Your task to perform on an android device: Go to sound settings Image 0: 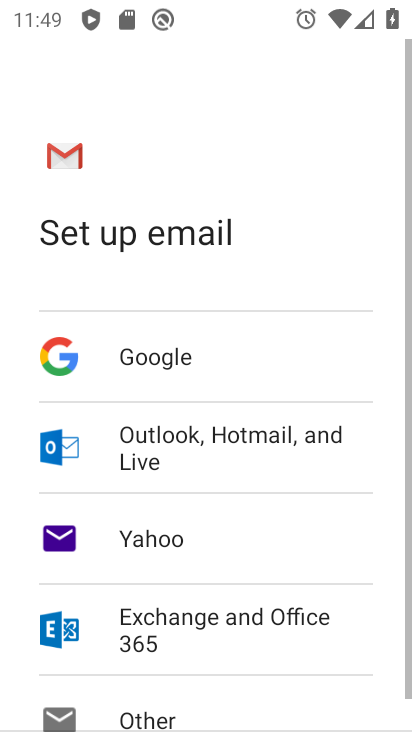
Step 0: press home button
Your task to perform on an android device: Go to sound settings Image 1: 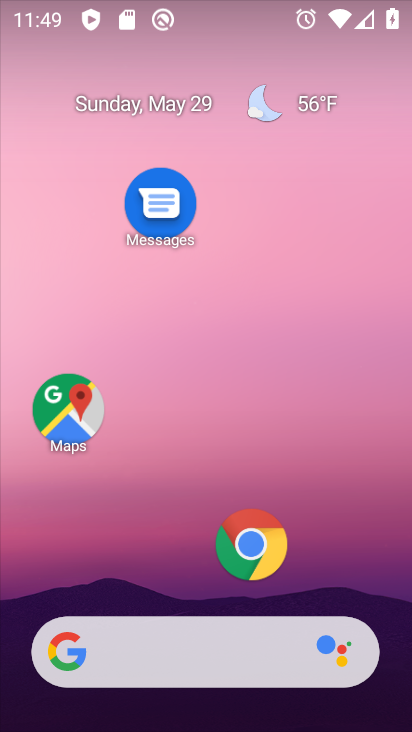
Step 1: drag from (199, 586) to (251, 17)
Your task to perform on an android device: Go to sound settings Image 2: 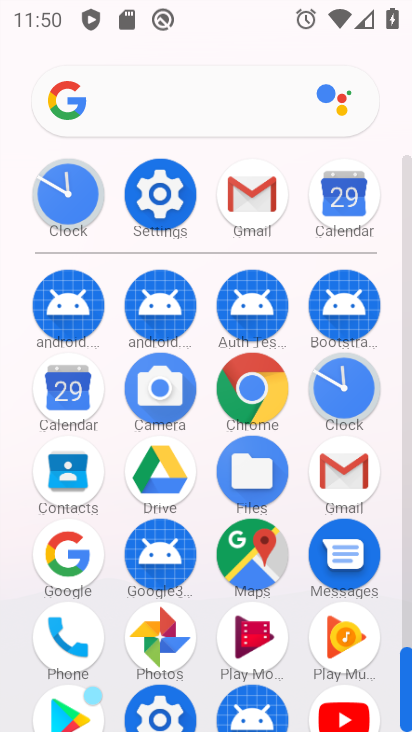
Step 2: click (164, 188)
Your task to perform on an android device: Go to sound settings Image 3: 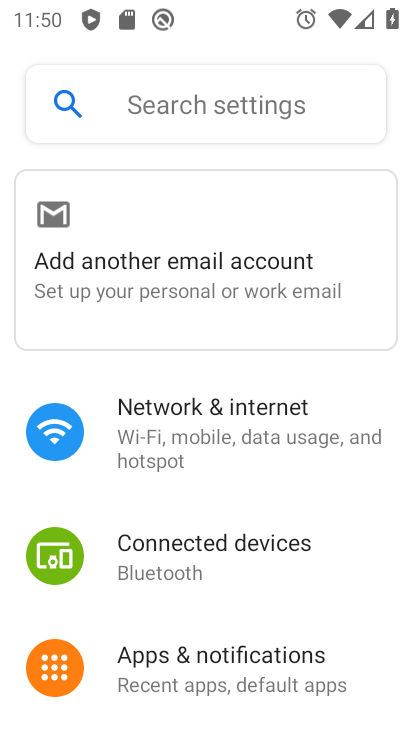
Step 3: drag from (177, 676) to (189, 196)
Your task to perform on an android device: Go to sound settings Image 4: 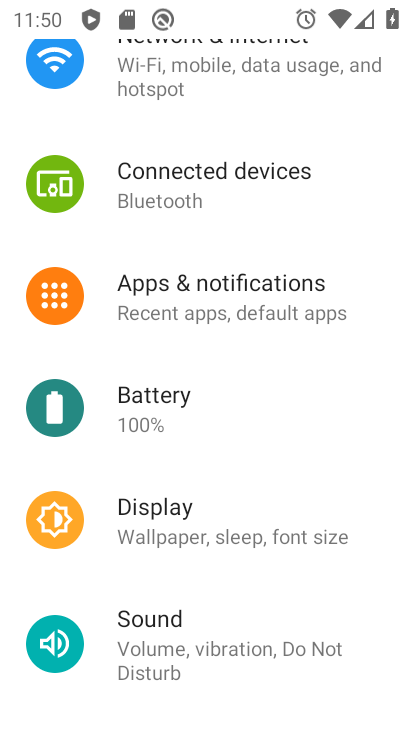
Step 4: click (203, 628)
Your task to perform on an android device: Go to sound settings Image 5: 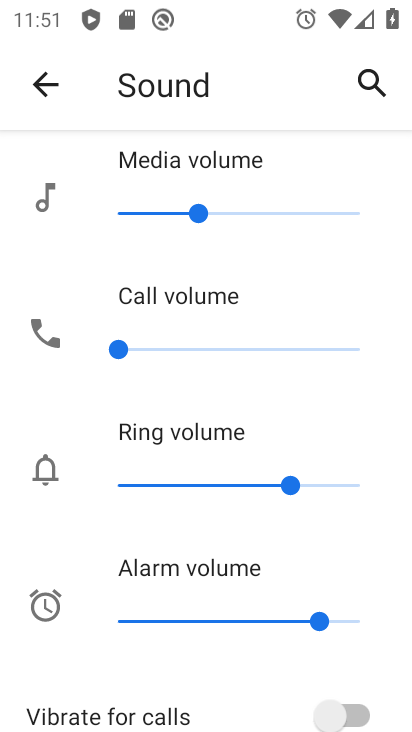
Step 5: task complete